Your task to perform on an android device: Go to Android settings Image 0: 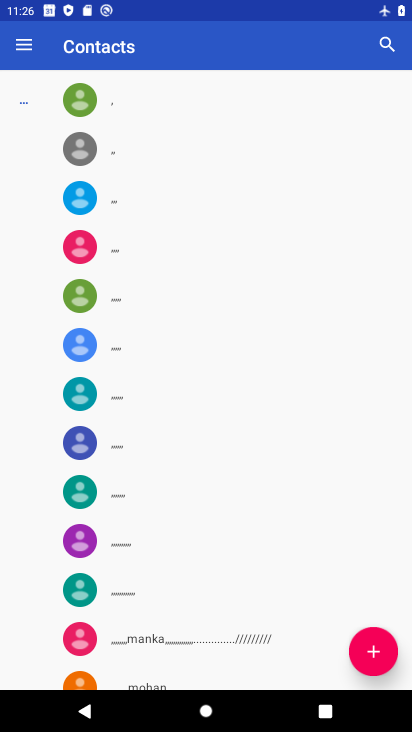
Step 0: press back button
Your task to perform on an android device: Go to Android settings Image 1: 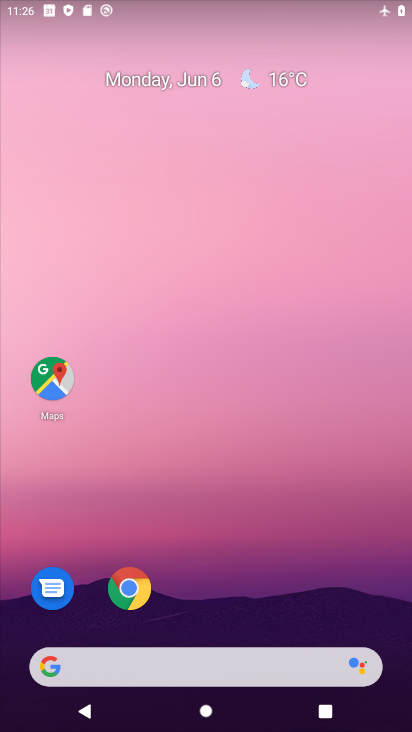
Step 1: drag from (280, 599) to (207, 25)
Your task to perform on an android device: Go to Android settings Image 2: 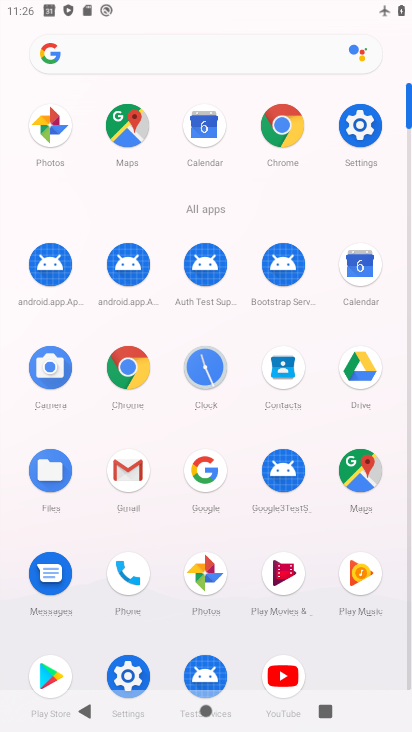
Step 2: click (360, 125)
Your task to perform on an android device: Go to Android settings Image 3: 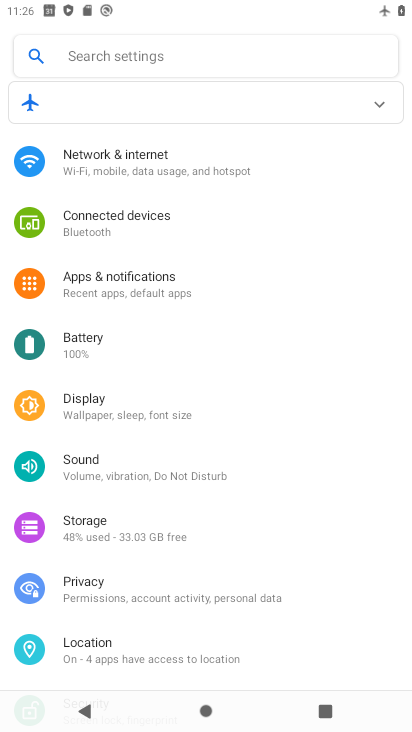
Step 3: task complete